Your task to perform on an android device: snooze an email in the gmail app Image 0: 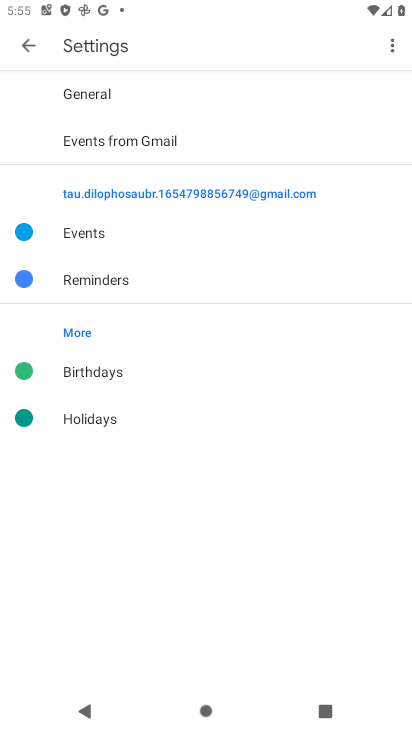
Step 0: press home button
Your task to perform on an android device: snooze an email in the gmail app Image 1: 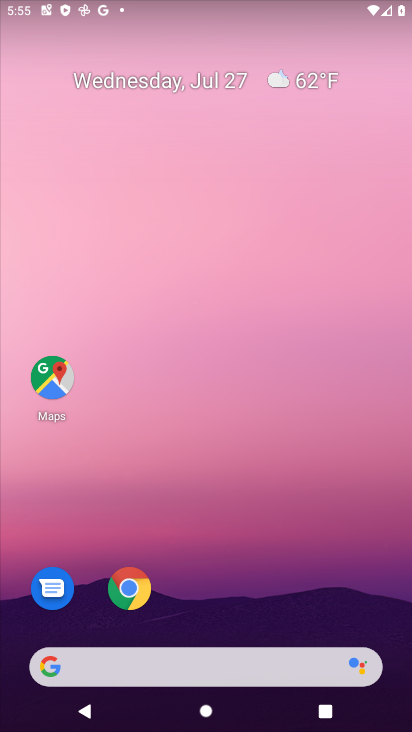
Step 1: drag from (187, 580) to (234, 100)
Your task to perform on an android device: snooze an email in the gmail app Image 2: 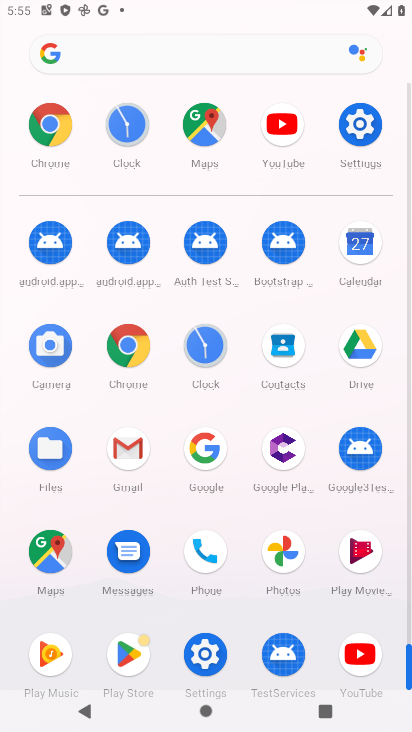
Step 2: click (118, 447)
Your task to perform on an android device: snooze an email in the gmail app Image 3: 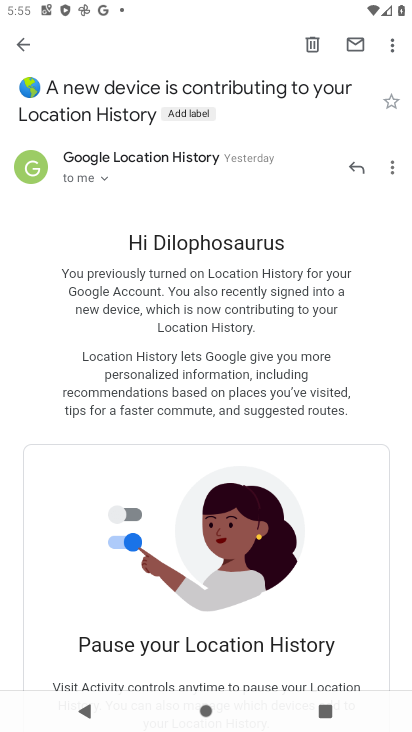
Step 3: click (394, 164)
Your task to perform on an android device: snooze an email in the gmail app Image 4: 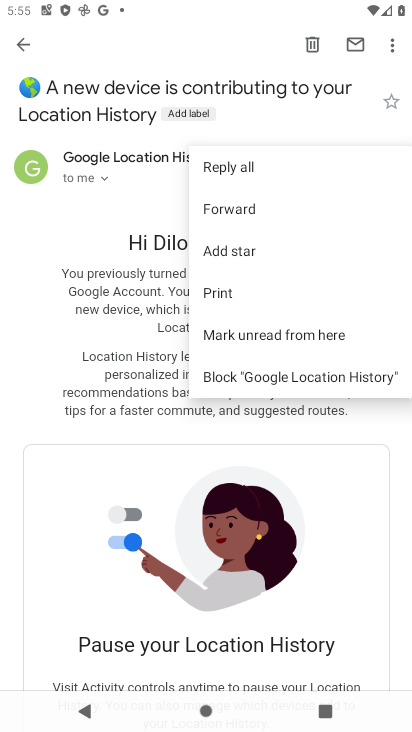
Step 4: click (393, 51)
Your task to perform on an android device: snooze an email in the gmail app Image 5: 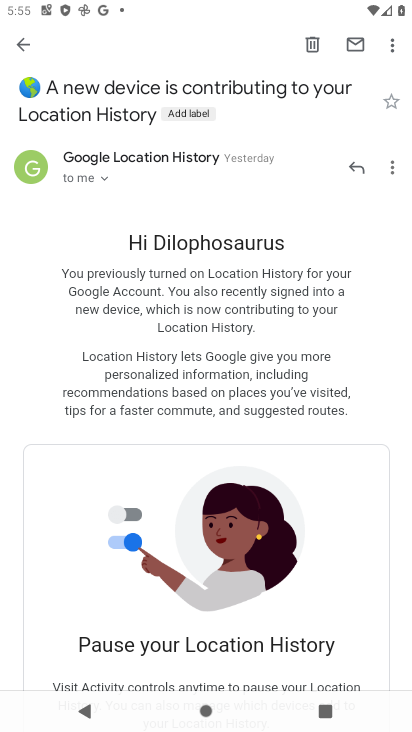
Step 5: click (393, 51)
Your task to perform on an android device: snooze an email in the gmail app Image 6: 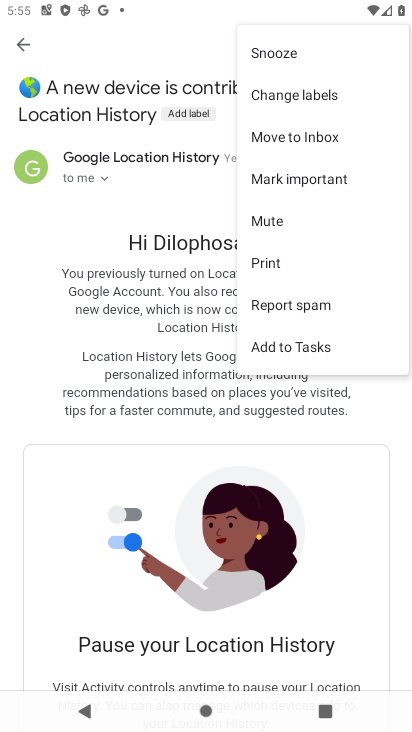
Step 6: click (302, 54)
Your task to perform on an android device: snooze an email in the gmail app Image 7: 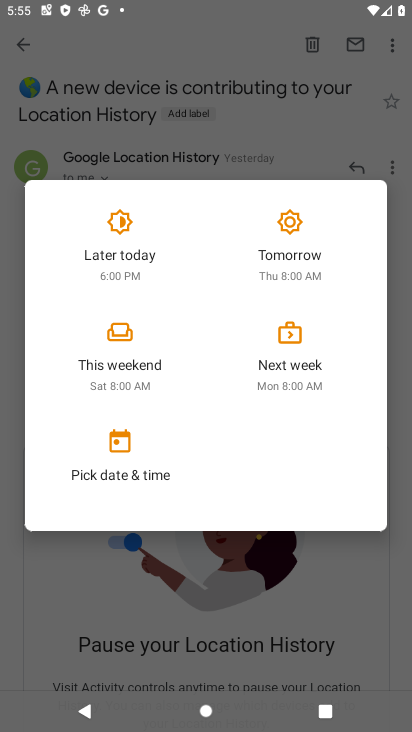
Step 7: click (131, 274)
Your task to perform on an android device: snooze an email in the gmail app Image 8: 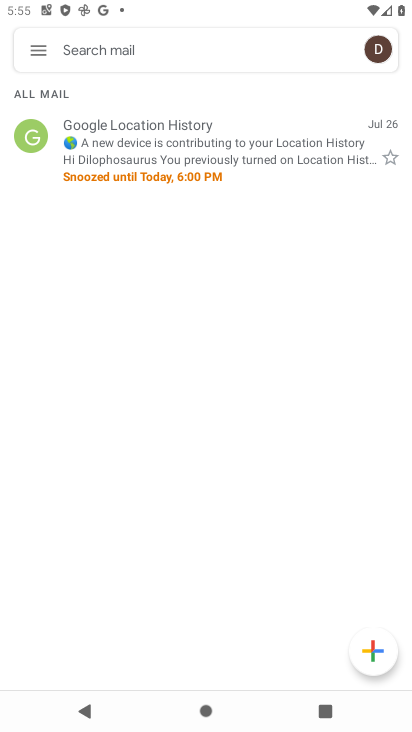
Step 8: task complete